Your task to perform on an android device: turn on the 12-hour format for clock Image 0: 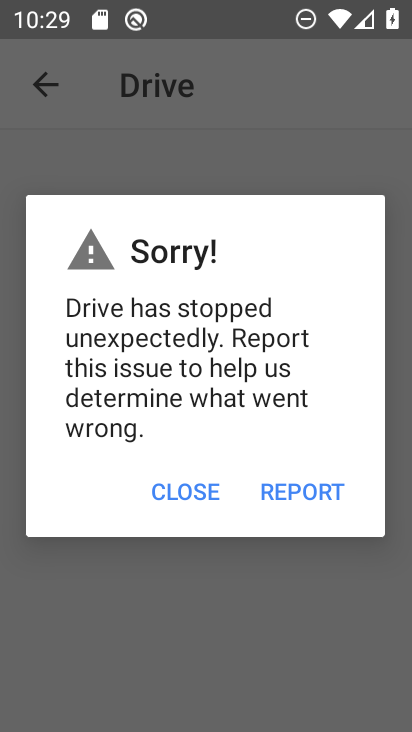
Step 0: press home button
Your task to perform on an android device: turn on the 12-hour format for clock Image 1: 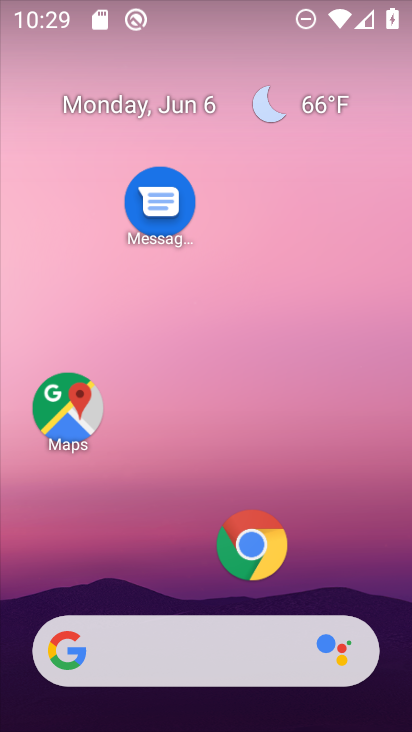
Step 1: drag from (108, 563) to (173, 72)
Your task to perform on an android device: turn on the 12-hour format for clock Image 2: 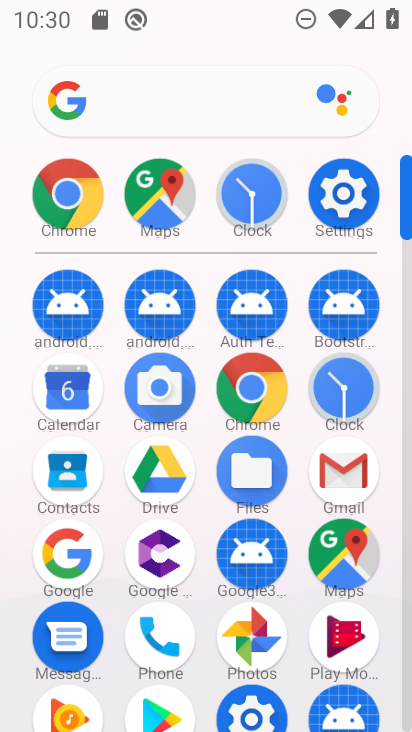
Step 2: click (354, 397)
Your task to perform on an android device: turn on the 12-hour format for clock Image 3: 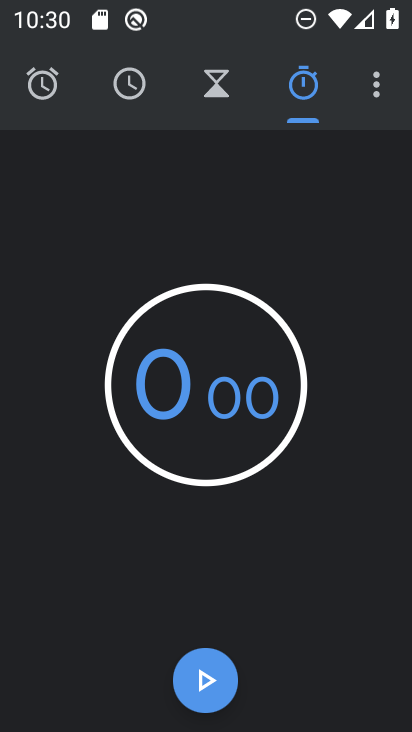
Step 3: click (378, 90)
Your task to perform on an android device: turn on the 12-hour format for clock Image 4: 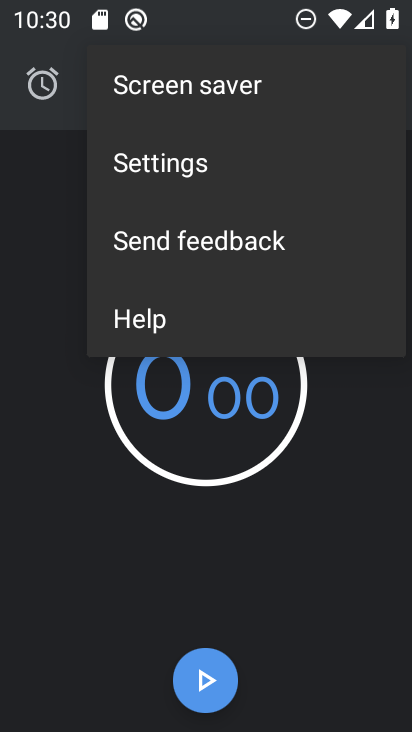
Step 4: click (209, 172)
Your task to perform on an android device: turn on the 12-hour format for clock Image 5: 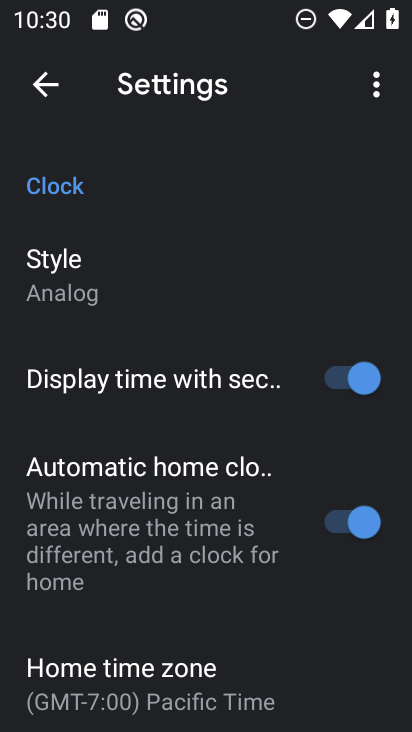
Step 5: drag from (129, 628) to (15, 89)
Your task to perform on an android device: turn on the 12-hour format for clock Image 6: 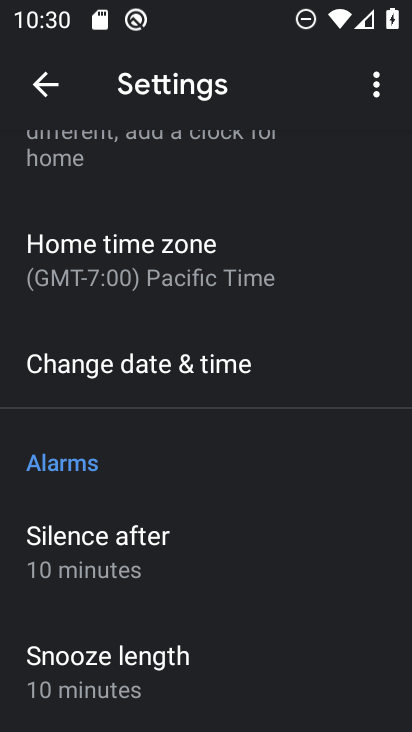
Step 6: drag from (181, 631) to (54, 167)
Your task to perform on an android device: turn on the 12-hour format for clock Image 7: 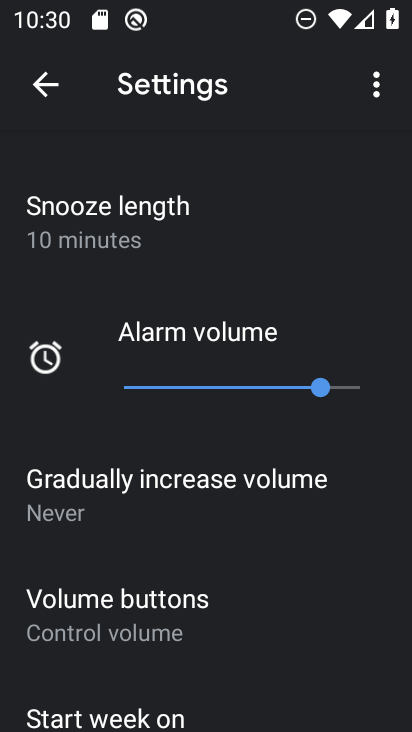
Step 7: drag from (112, 295) to (84, 717)
Your task to perform on an android device: turn on the 12-hour format for clock Image 8: 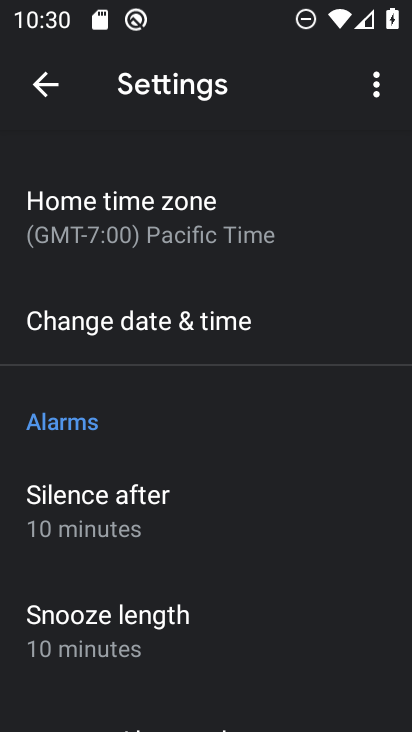
Step 8: click (79, 339)
Your task to perform on an android device: turn on the 12-hour format for clock Image 9: 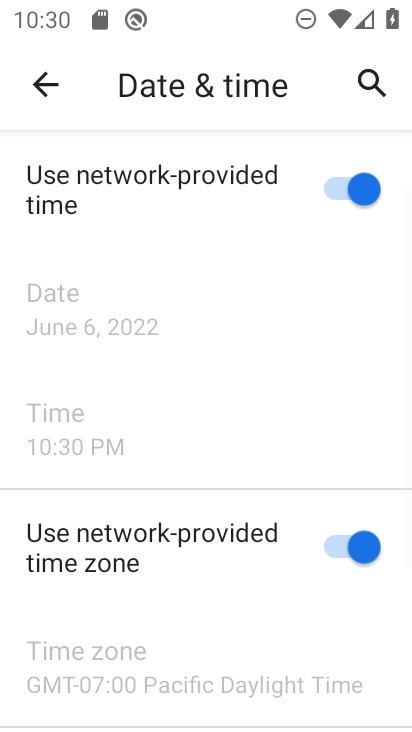
Step 9: task complete